Your task to perform on an android device: Go to settings Image 0: 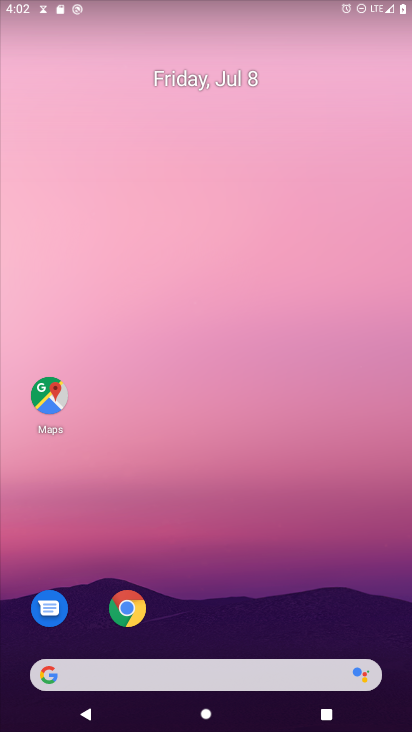
Step 0: drag from (235, 699) to (292, 30)
Your task to perform on an android device: Go to settings Image 1: 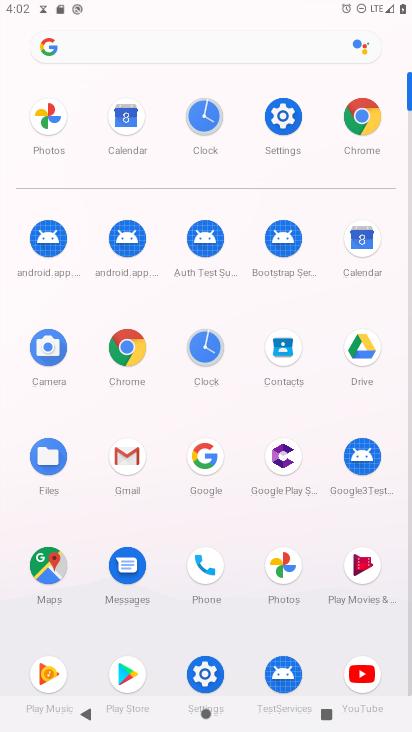
Step 1: click (288, 102)
Your task to perform on an android device: Go to settings Image 2: 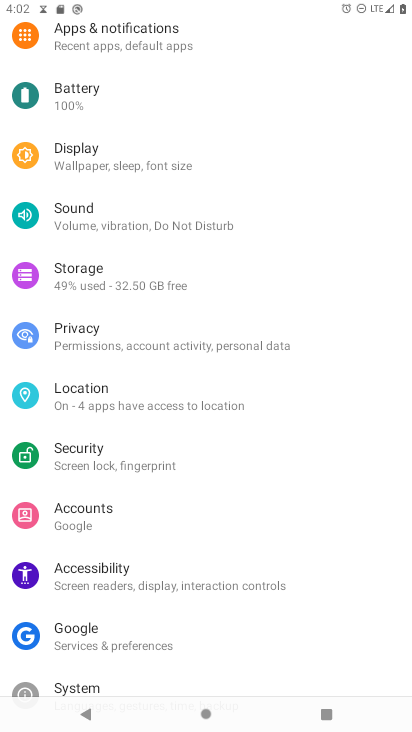
Step 2: task complete